Your task to perform on an android device: Open calendar and show me the first week of next month Image 0: 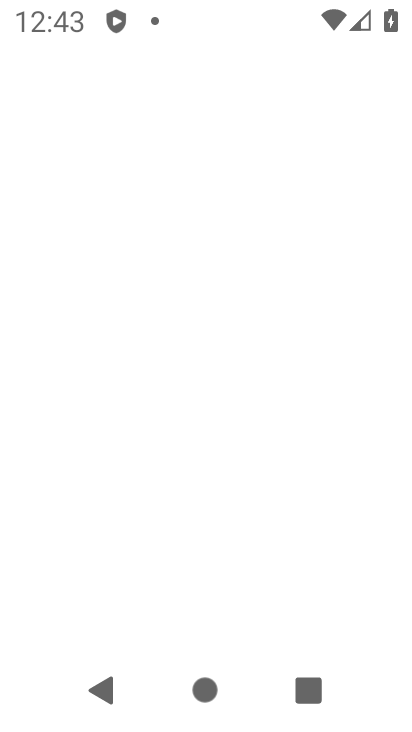
Step 0: press back button
Your task to perform on an android device: Open calendar and show me the first week of next month Image 1: 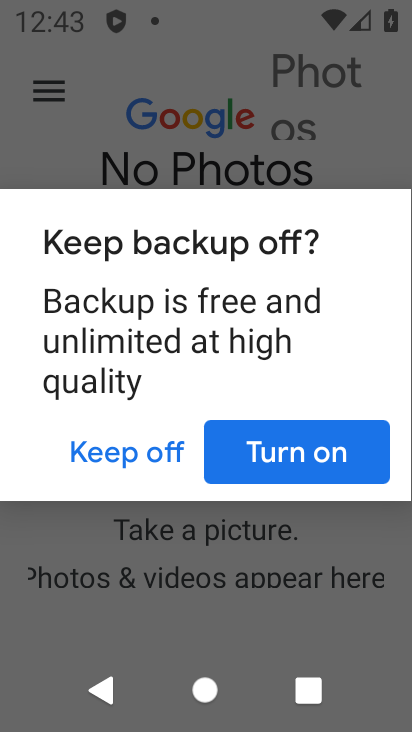
Step 1: press home button
Your task to perform on an android device: Open calendar and show me the first week of next month Image 2: 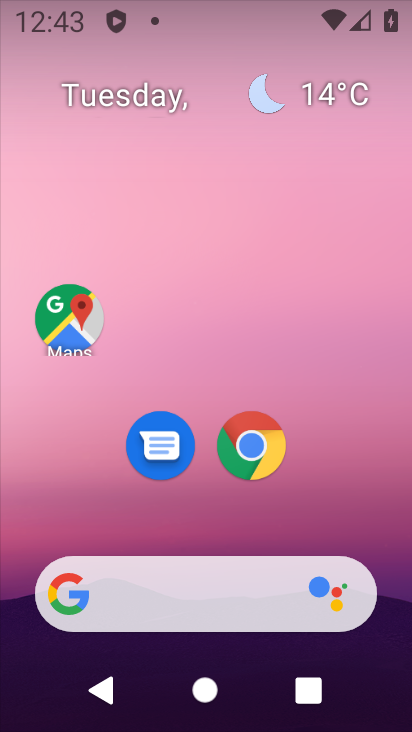
Step 2: drag from (402, 607) to (229, 25)
Your task to perform on an android device: Open calendar and show me the first week of next month Image 3: 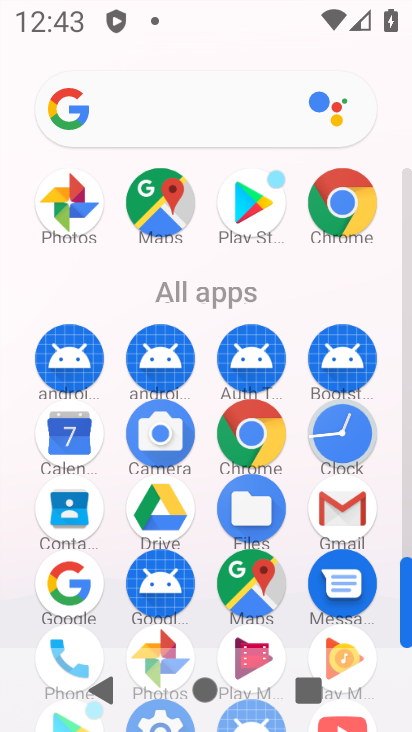
Step 3: drag from (9, 602) to (25, 301)
Your task to perform on an android device: Open calendar and show me the first week of next month Image 4: 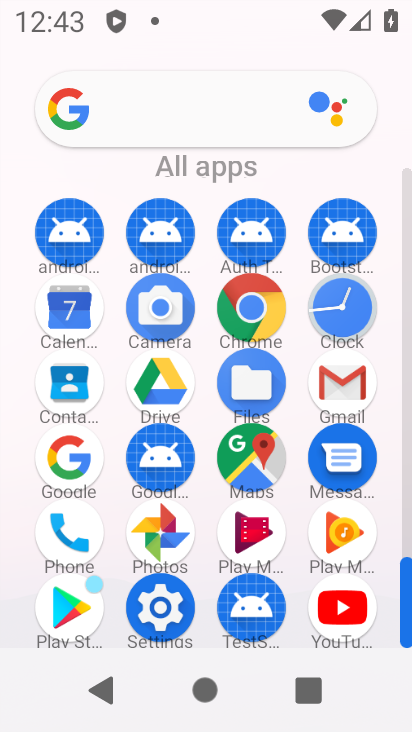
Step 4: click (62, 304)
Your task to perform on an android device: Open calendar and show me the first week of next month Image 5: 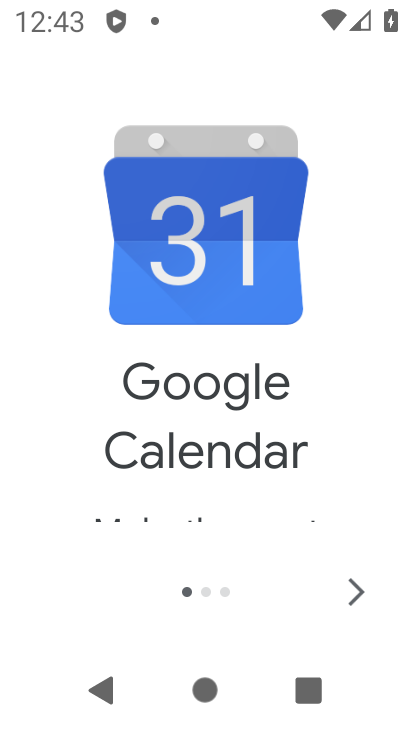
Step 5: click (354, 588)
Your task to perform on an android device: Open calendar and show me the first week of next month Image 6: 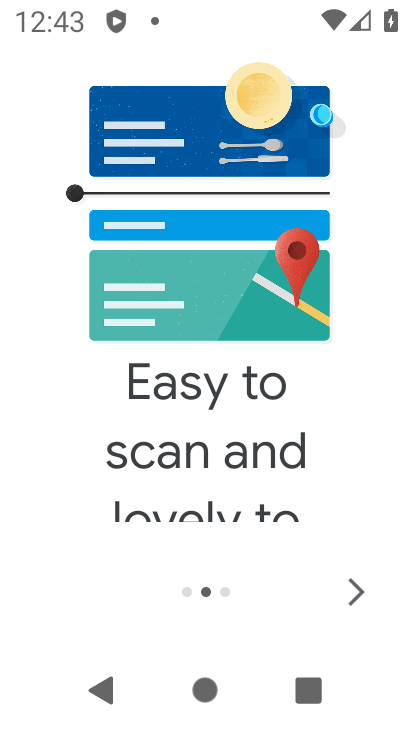
Step 6: click (354, 588)
Your task to perform on an android device: Open calendar and show me the first week of next month Image 7: 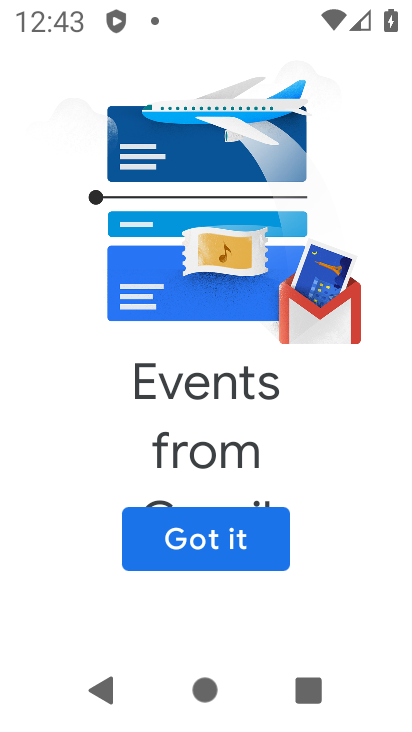
Step 7: click (236, 539)
Your task to perform on an android device: Open calendar and show me the first week of next month Image 8: 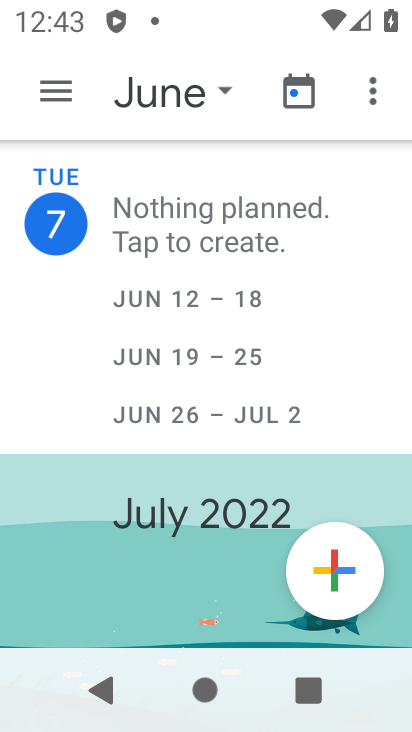
Step 8: click (295, 84)
Your task to perform on an android device: Open calendar and show me the first week of next month Image 9: 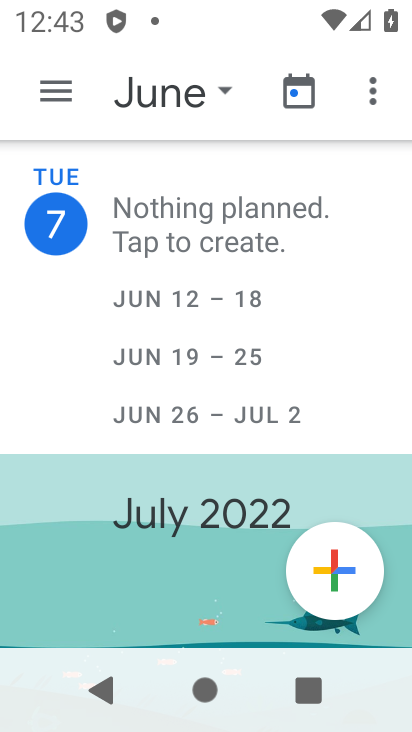
Step 9: click (125, 88)
Your task to perform on an android device: Open calendar and show me the first week of next month Image 10: 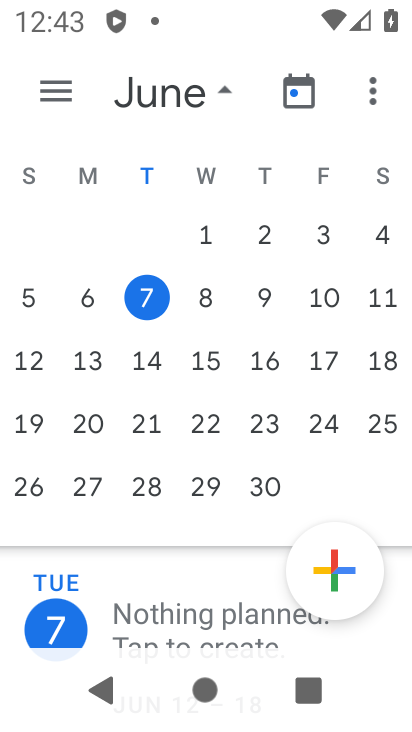
Step 10: drag from (357, 340) to (4, 278)
Your task to perform on an android device: Open calendar and show me the first week of next month Image 11: 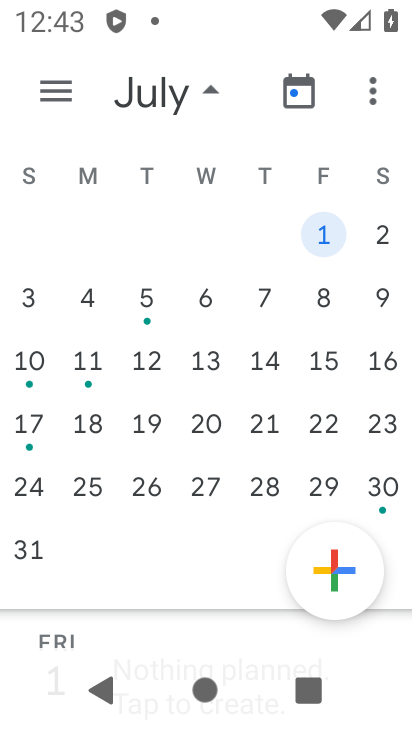
Step 11: click (31, 293)
Your task to perform on an android device: Open calendar and show me the first week of next month Image 12: 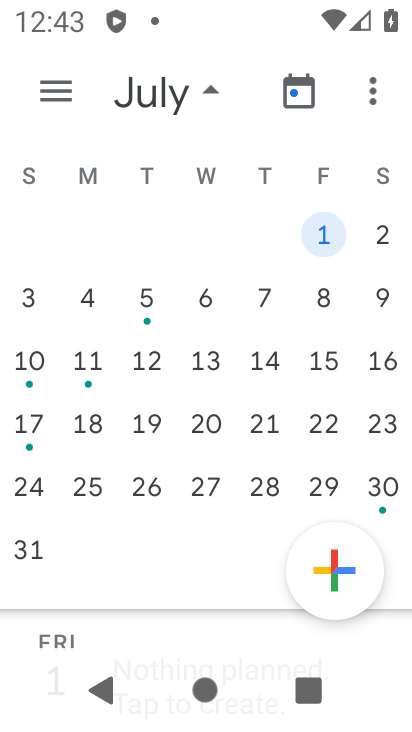
Step 12: click (31, 293)
Your task to perform on an android device: Open calendar and show me the first week of next month Image 13: 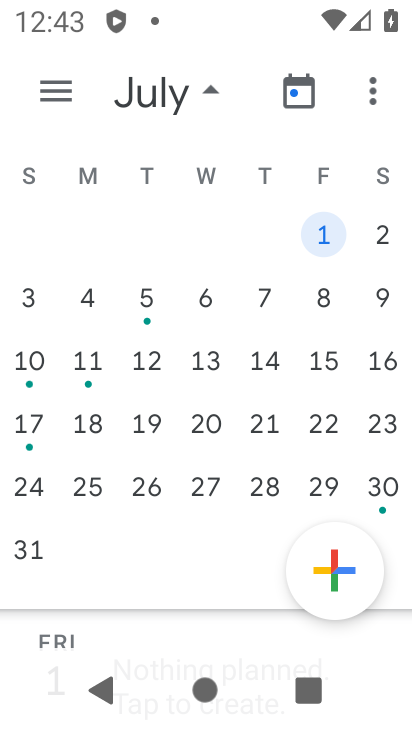
Step 13: click (32, 304)
Your task to perform on an android device: Open calendar and show me the first week of next month Image 14: 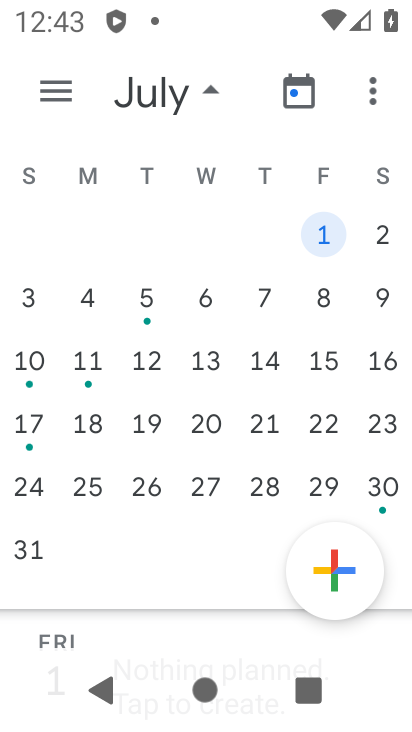
Step 14: click (32, 304)
Your task to perform on an android device: Open calendar and show me the first week of next month Image 15: 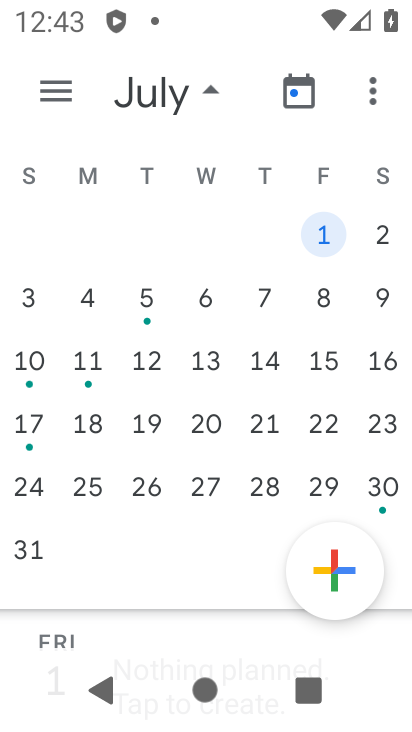
Step 15: click (34, 301)
Your task to perform on an android device: Open calendar and show me the first week of next month Image 16: 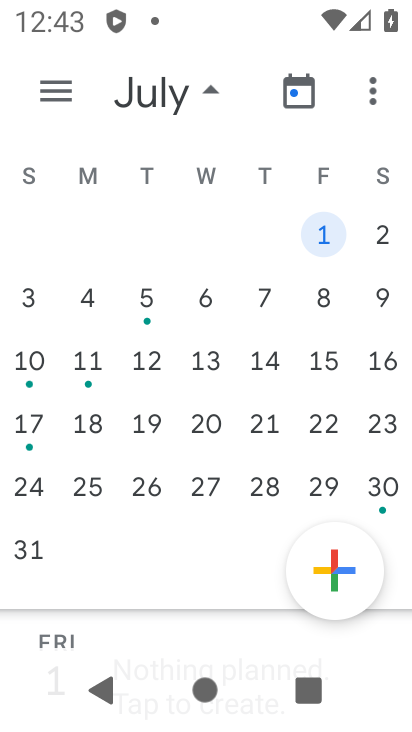
Step 16: click (34, 294)
Your task to perform on an android device: Open calendar and show me the first week of next month Image 17: 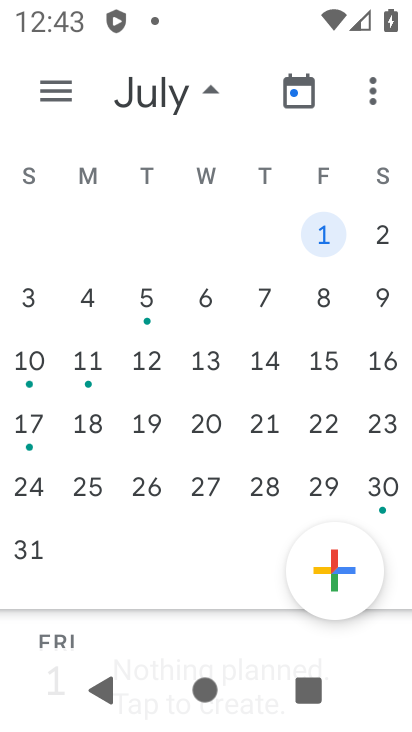
Step 17: click (34, 288)
Your task to perform on an android device: Open calendar and show me the first week of next month Image 18: 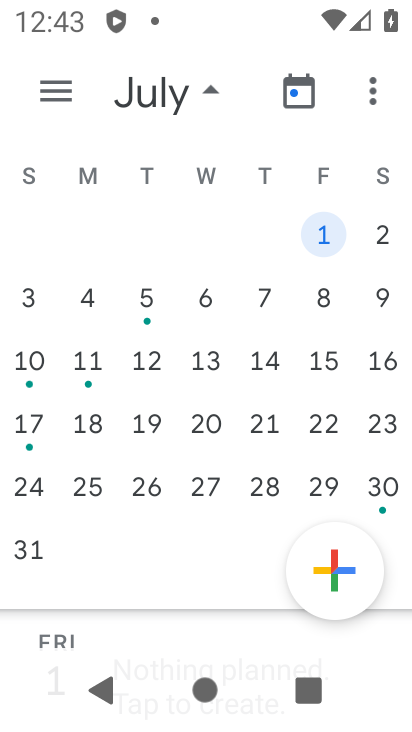
Step 18: click (33, 292)
Your task to perform on an android device: Open calendar and show me the first week of next month Image 19: 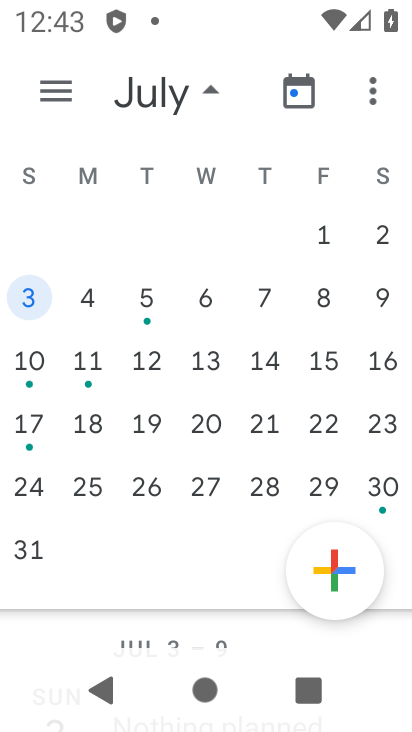
Step 19: click (71, 101)
Your task to perform on an android device: Open calendar and show me the first week of next month Image 20: 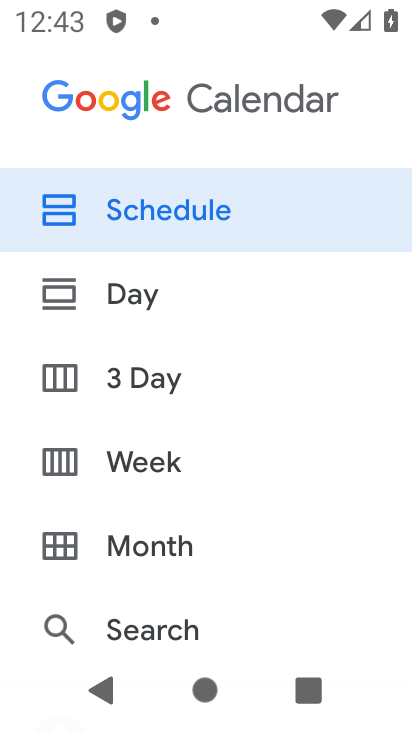
Step 20: click (176, 455)
Your task to perform on an android device: Open calendar and show me the first week of next month Image 21: 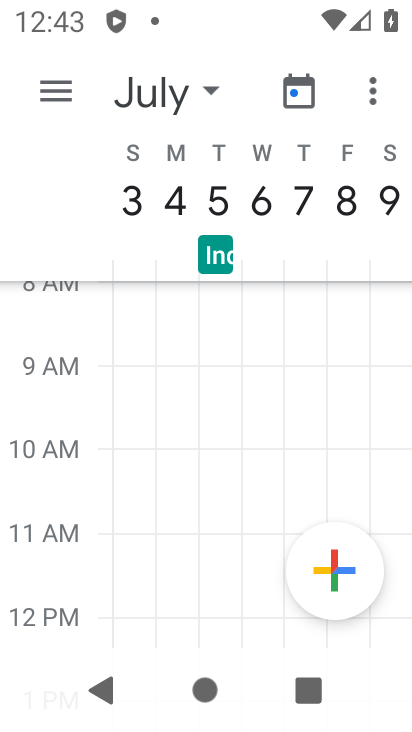
Step 21: task complete